Your task to perform on an android device: turn notification dots off Image 0: 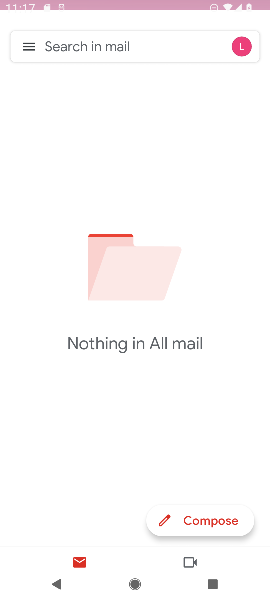
Step 0: press back button
Your task to perform on an android device: turn notification dots off Image 1: 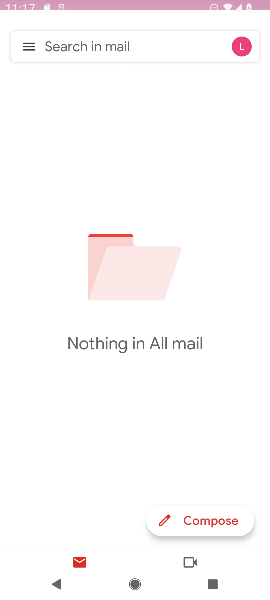
Step 1: click (87, 172)
Your task to perform on an android device: turn notification dots off Image 2: 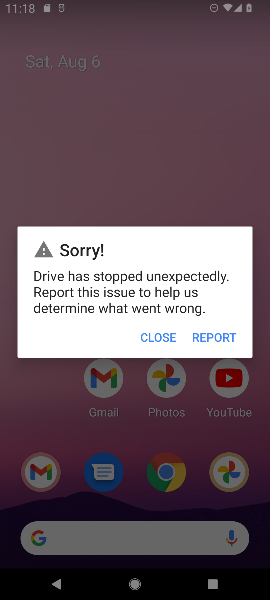
Step 2: press back button
Your task to perform on an android device: turn notification dots off Image 3: 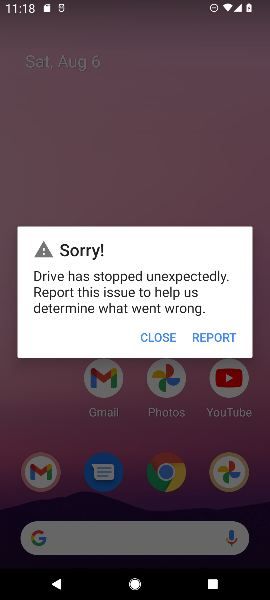
Step 3: click (66, 130)
Your task to perform on an android device: turn notification dots off Image 4: 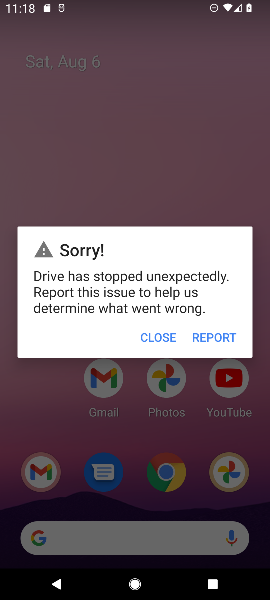
Step 4: click (138, 333)
Your task to perform on an android device: turn notification dots off Image 5: 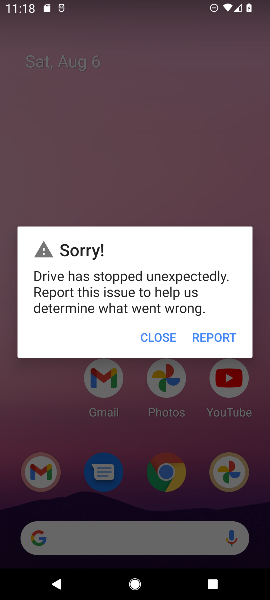
Step 5: click (143, 337)
Your task to perform on an android device: turn notification dots off Image 6: 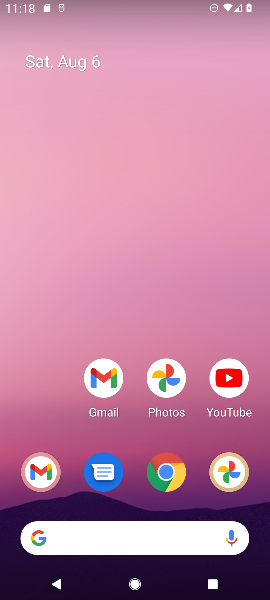
Step 6: click (149, 335)
Your task to perform on an android device: turn notification dots off Image 7: 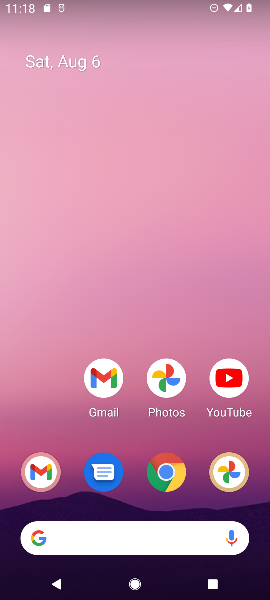
Step 7: drag from (166, 450) to (154, 71)
Your task to perform on an android device: turn notification dots off Image 8: 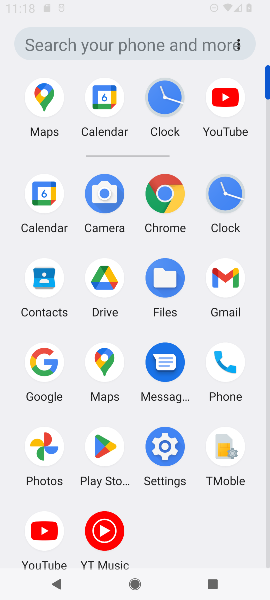
Step 8: drag from (153, 359) to (147, 42)
Your task to perform on an android device: turn notification dots off Image 9: 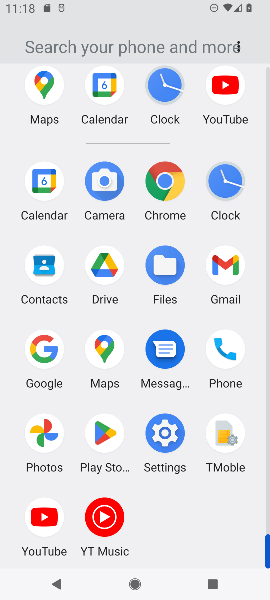
Step 9: click (160, 424)
Your task to perform on an android device: turn notification dots off Image 10: 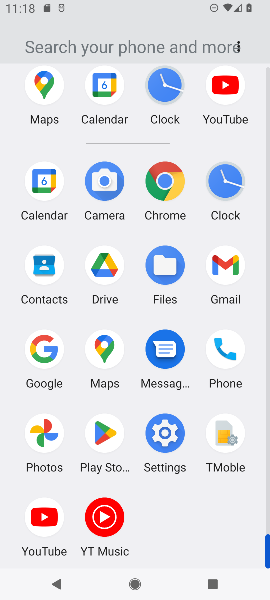
Step 10: click (163, 426)
Your task to perform on an android device: turn notification dots off Image 11: 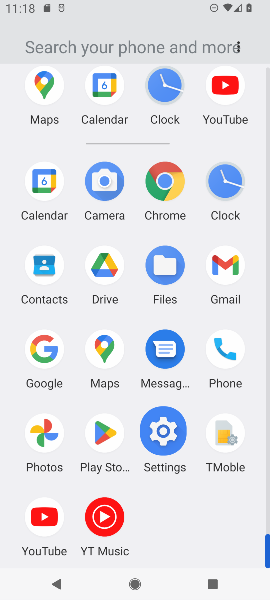
Step 11: click (165, 426)
Your task to perform on an android device: turn notification dots off Image 12: 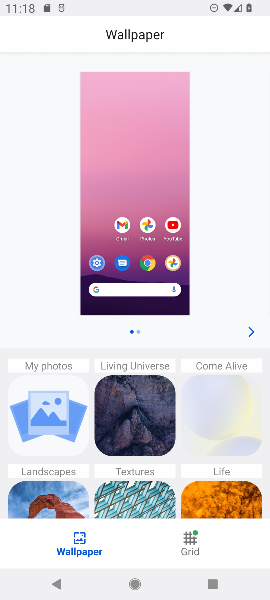
Step 12: press back button
Your task to perform on an android device: turn notification dots off Image 13: 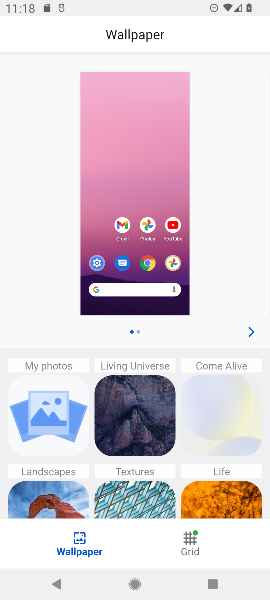
Step 13: press back button
Your task to perform on an android device: turn notification dots off Image 14: 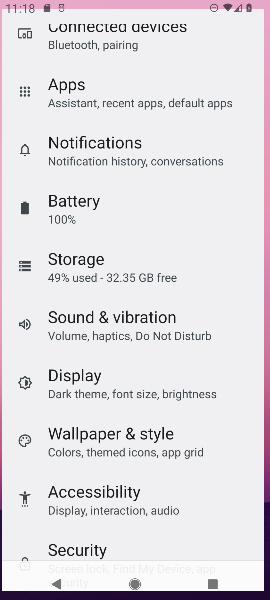
Step 14: press back button
Your task to perform on an android device: turn notification dots off Image 15: 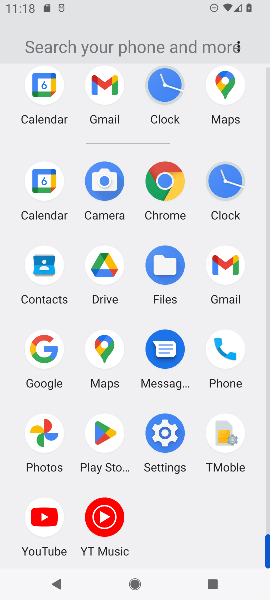
Step 15: press back button
Your task to perform on an android device: turn notification dots off Image 16: 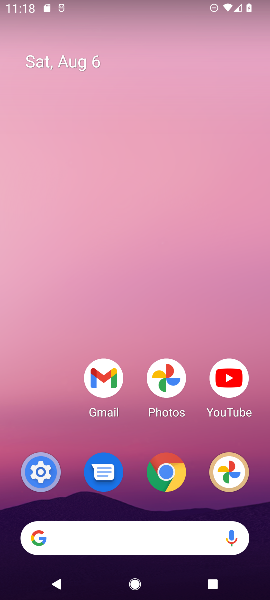
Step 16: drag from (159, 493) to (95, 119)
Your task to perform on an android device: turn notification dots off Image 17: 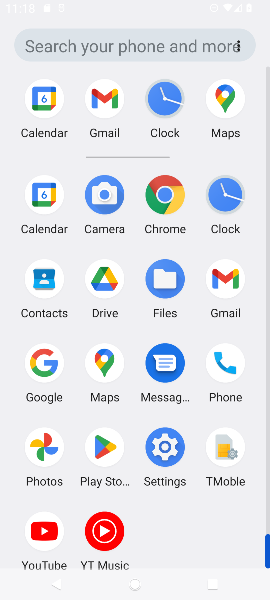
Step 17: drag from (138, 519) to (110, 226)
Your task to perform on an android device: turn notification dots off Image 18: 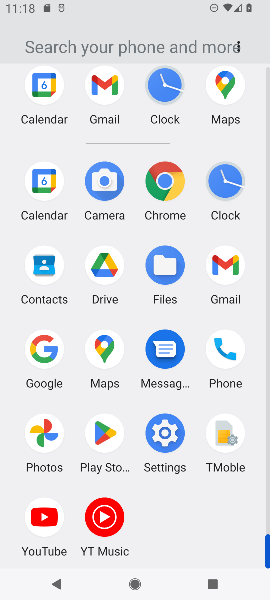
Step 18: click (165, 436)
Your task to perform on an android device: turn notification dots off Image 19: 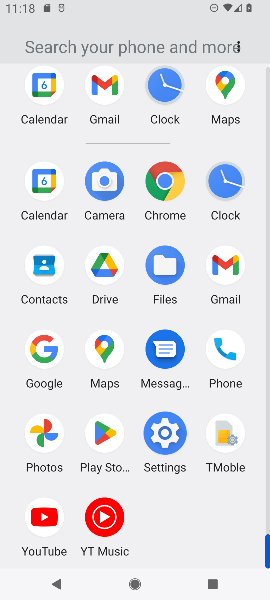
Step 19: click (165, 436)
Your task to perform on an android device: turn notification dots off Image 20: 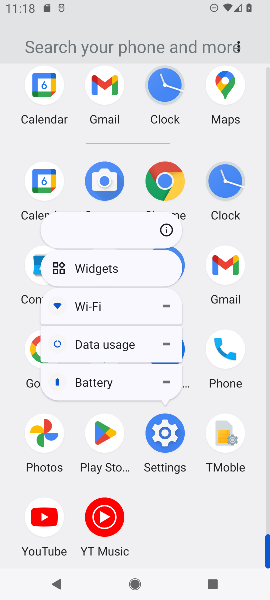
Step 20: click (164, 437)
Your task to perform on an android device: turn notification dots off Image 21: 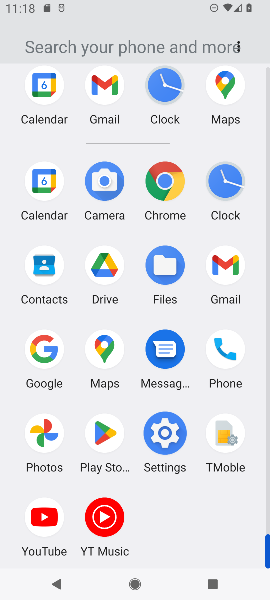
Step 21: click (164, 437)
Your task to perform on an android device: turn notification dots off Image 22: 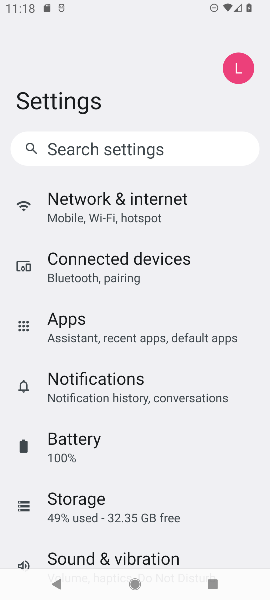
Step 22: click (90, 390)
Your task to perform on an android device: turn notification dots off Image 23: 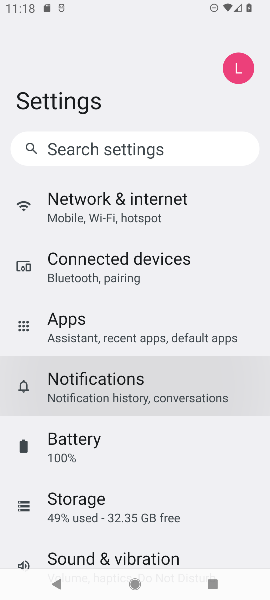
Step 23: click (90, 390)
Your task to perform on an android device: turn notification dots off Image 24: 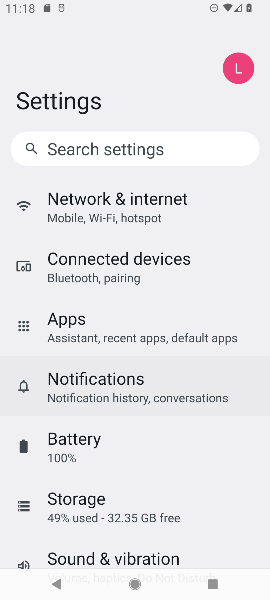
Step 24: click (89, 390)
Your task to perform on an android device: turn notification dots off Image 25: 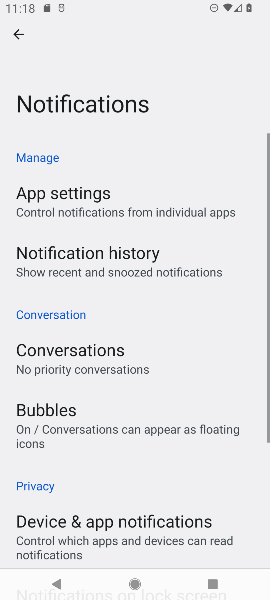
Step 25: click (87, 392)
Your task to perform on an android device: turn notification dots off Image 26: 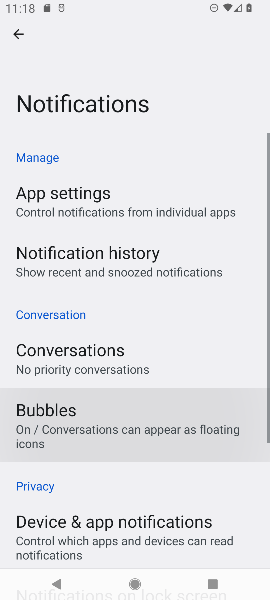
Step 26: click (89, 396)
Your task to perform on an android device: turn notification dots off Image 27: 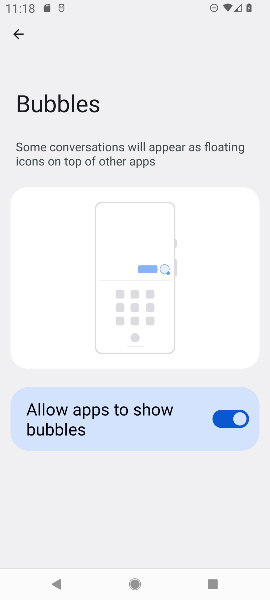
Step 27: click (17, 38)
Your task to perform on an android device: turn notification dots off Image 28: 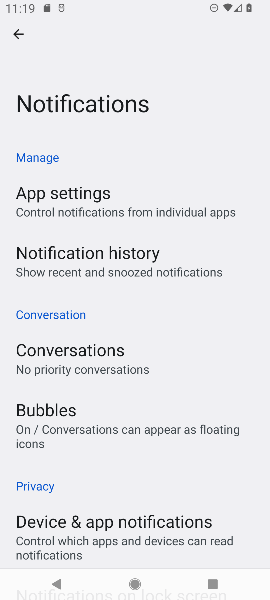
Step 28: drag from (73, 493) to (87, 241)
Your task to perform on an android device: turn notification dots off Image 29: 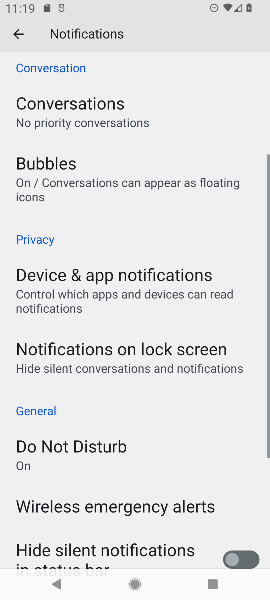
Step 29: drag from (139, 447) to (138, 295)
Your task to perform on an android device: turn notification dots off Image 30: 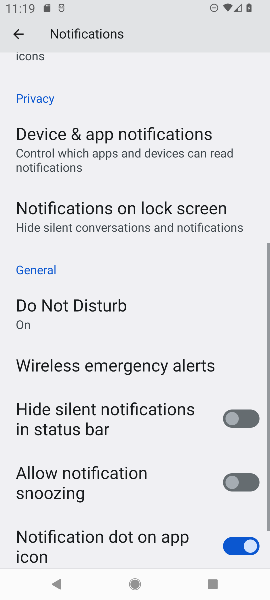
Step 30: drag from (162, 422) to (173, 346)
Your task to perform on an android device: turn notification dots off Image 31: 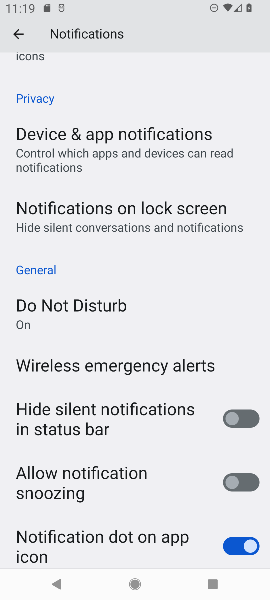
Step 31: drag from (129, 467) to (129, 165)
Your task to perform on an android device: turn notification dots off Image 32: 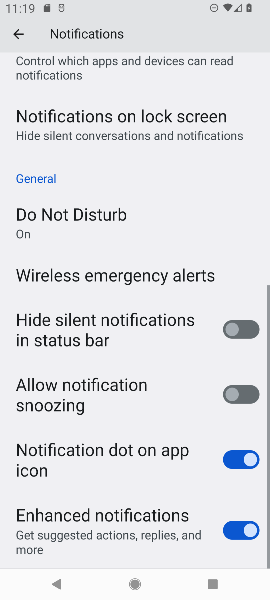
Step 32: drag from (161, 414) to (157, 136)
Your task to perform on an android device: turn notification dots off Image 33: 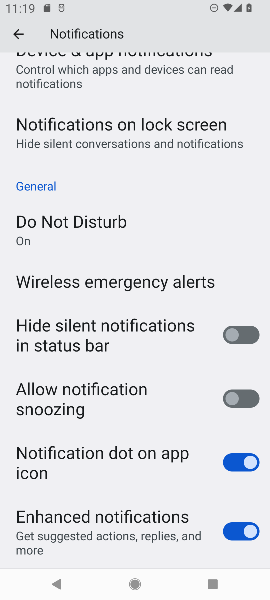
Step 33: drag from (131, 517) to (102, 286)
Your task to perform on an android device: turn notification dots off Image 34: 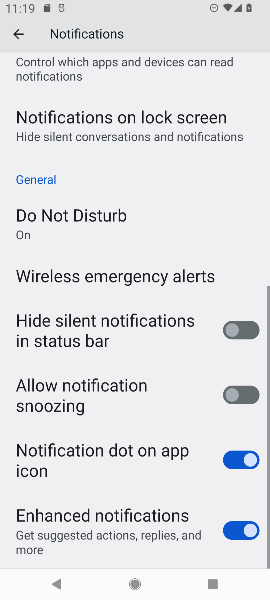
Step 34: drag from (135, 499) to (166, 288)
Your task to perform on an android device: turn notification dots off Image 35: 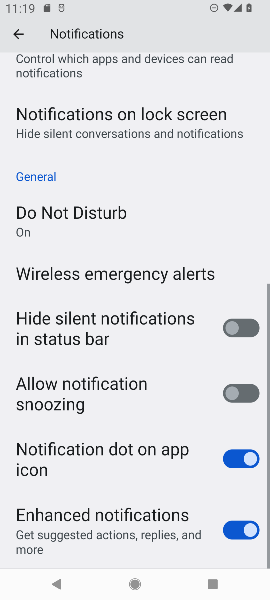
Step 35: drag from (159, 435) to (148, 212)
Your task to perform on an android device: turn notification dots off Image 36: 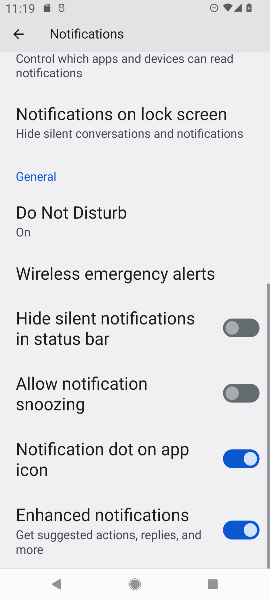
Step 36: drag from (151, 385) to (126, 259)
Your task to perform on an android device: turn notification dots off Image 37: 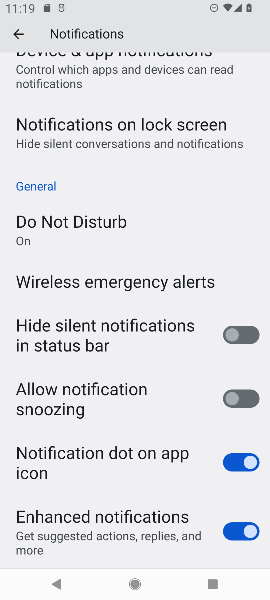
Step 37: click (238, 454)
Your task to perform on an android device: turn notification dots off Image 38: 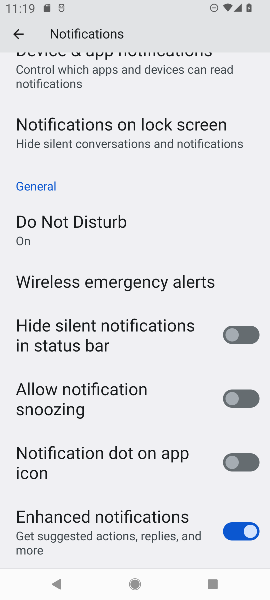
Step 38: task complete